Your task to perform on an android device: Open location settings Image 0: 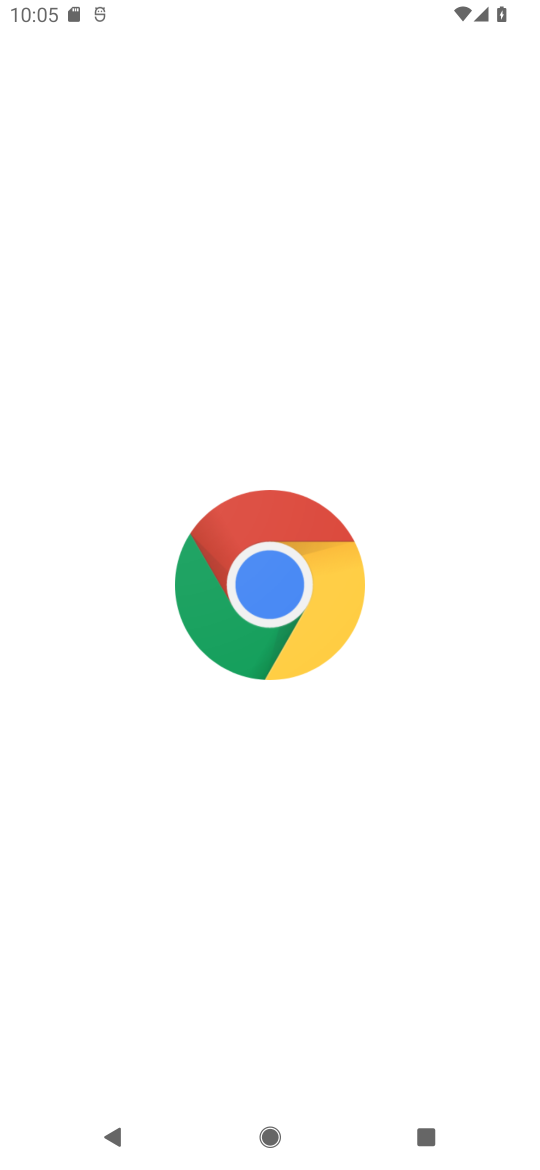
Step 0: press home button
Your task to perform on an android device: Open location settings Image 1: 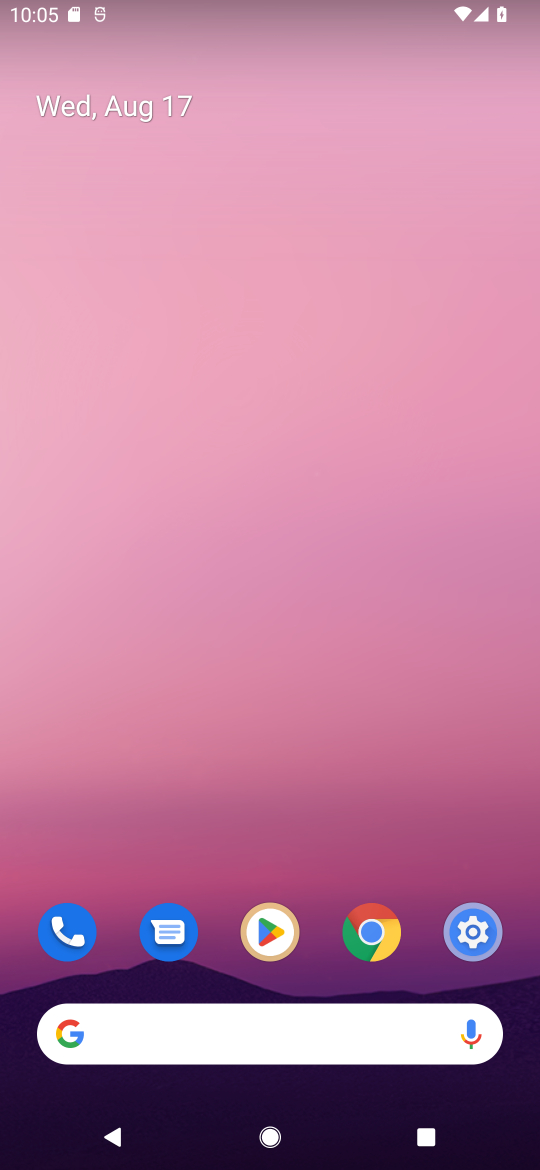
Step 1: drag from (298, 879) to (299, 165)
Your task to perform on an android device: Open location settings Image 2: 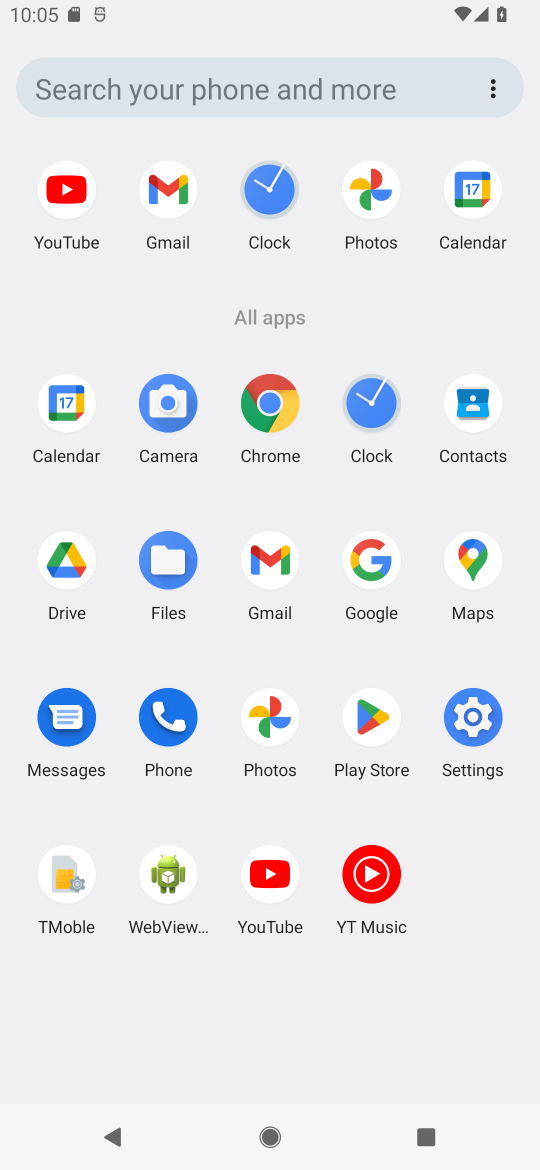
Step 2: click (477, 717)
Your task to perform on an android device: Open location settings Image 3: 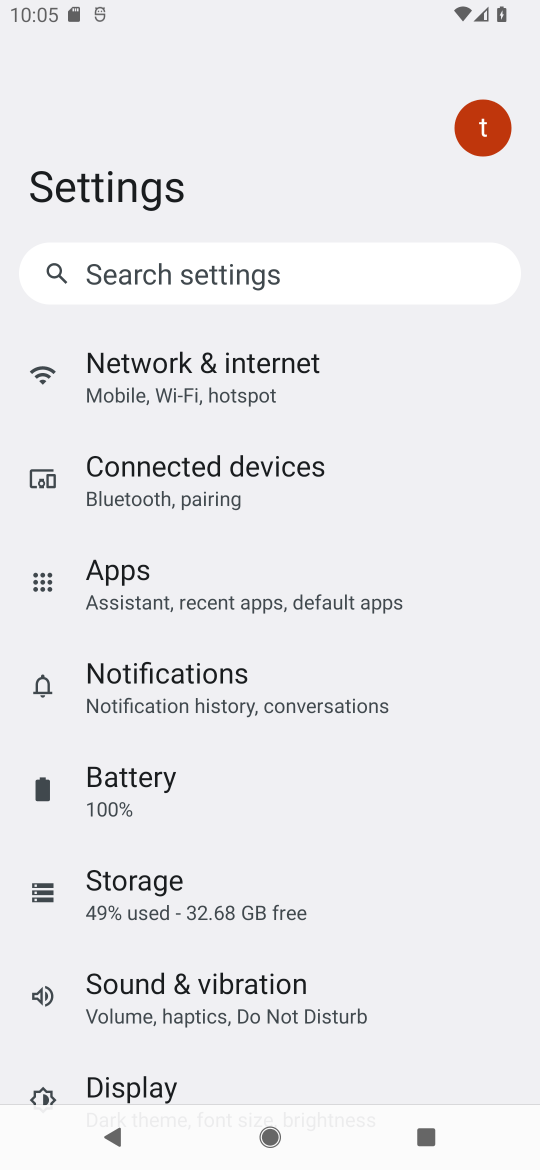
Step 3: click (161, 1024)
Your task to perform on an android device: Open location settings Image 4: 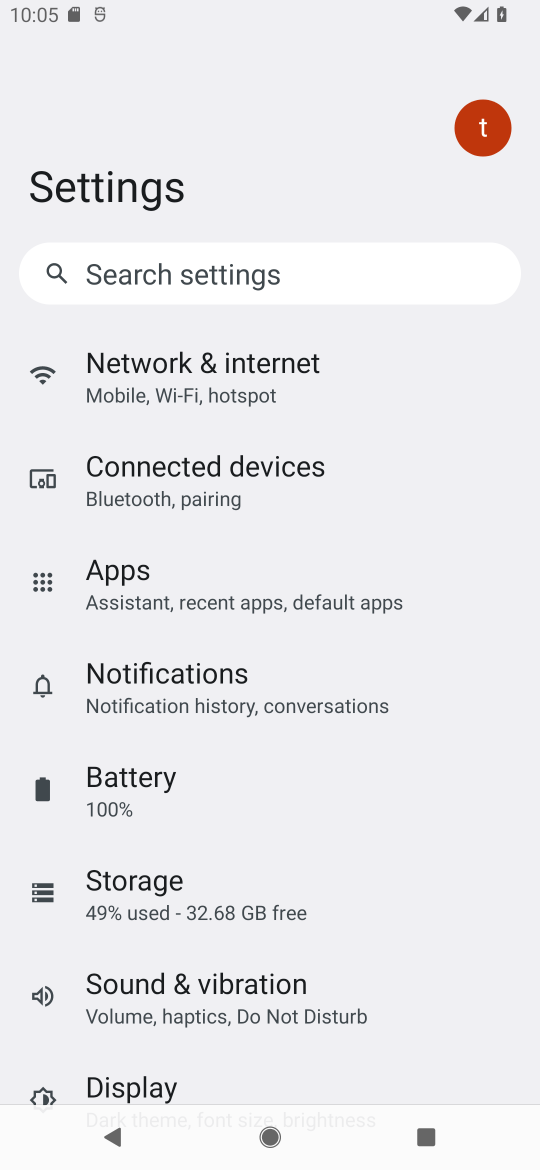
Step 4: drag from (145, 751) to (131, 407)
Your task to perform on an android device: Open location settings Image 5: 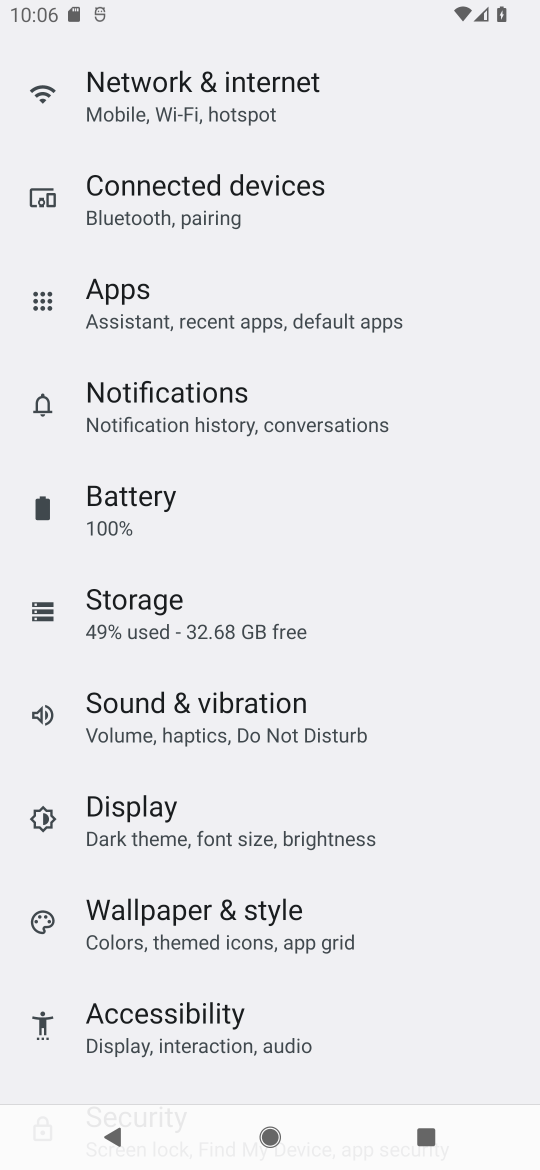
Step 5: drag from (140, 922) to (140, 782)
Your task to perform on an android device: Open location settings Image 6: 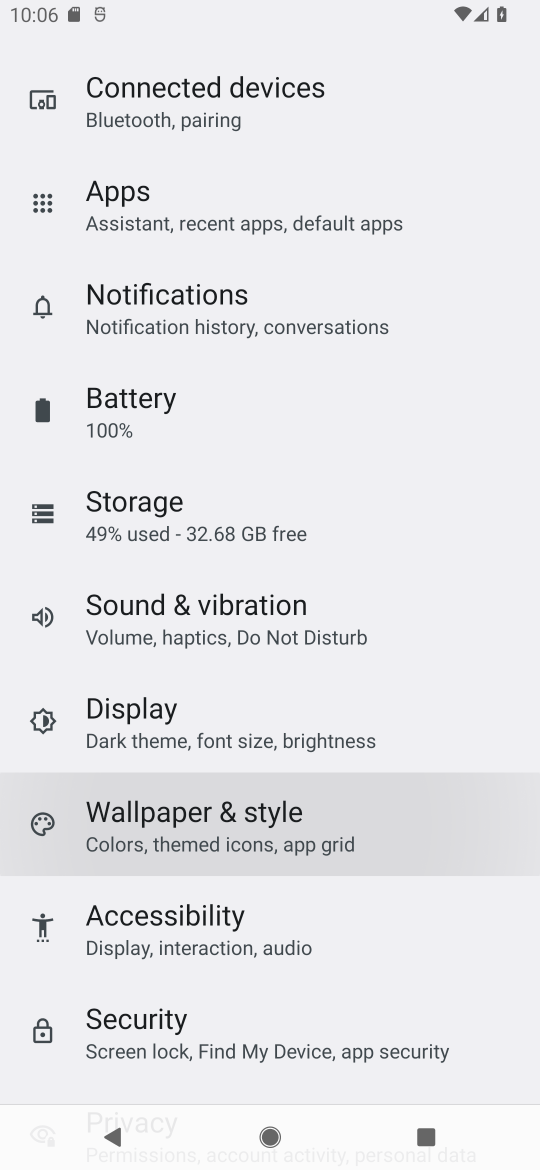
Step 6: drag from (140, 514) to (140, 364)
Your task to perform on an android device: Open location settings Image 7: 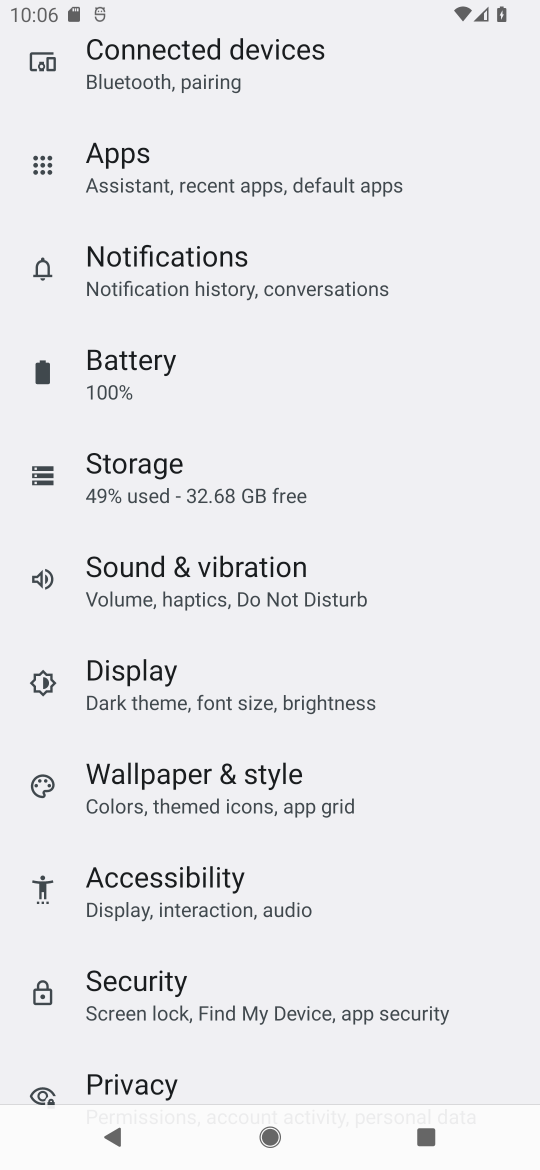
Step 7: drag from (144, 1010) to (125, 308)
Your task to perform on an android device: Open location settings Image 8: 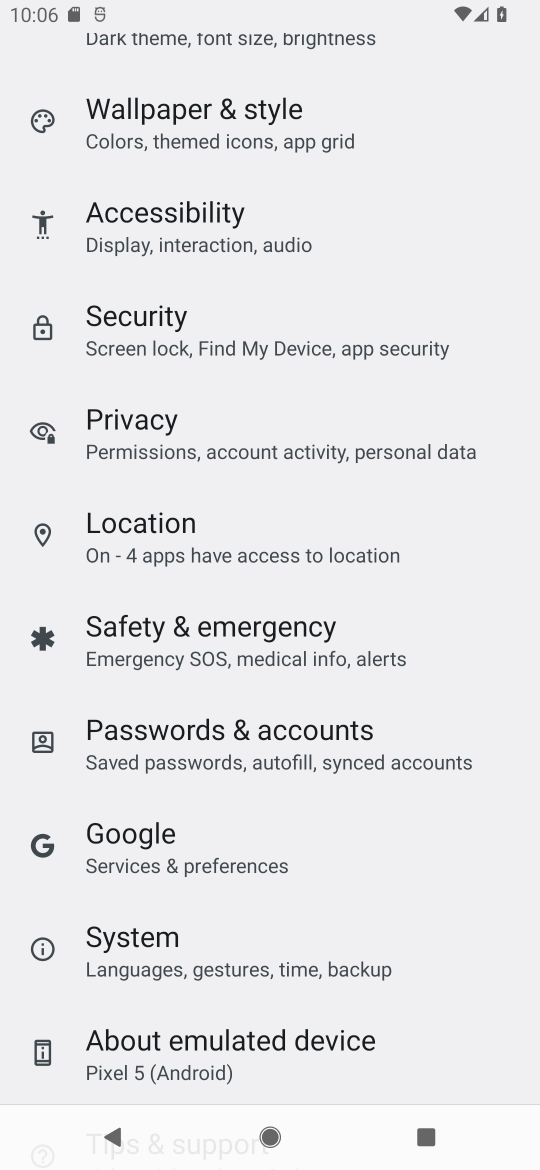
Step 8: click (124, 532)
Your task to perform on an android device: Open location settings Image 9: 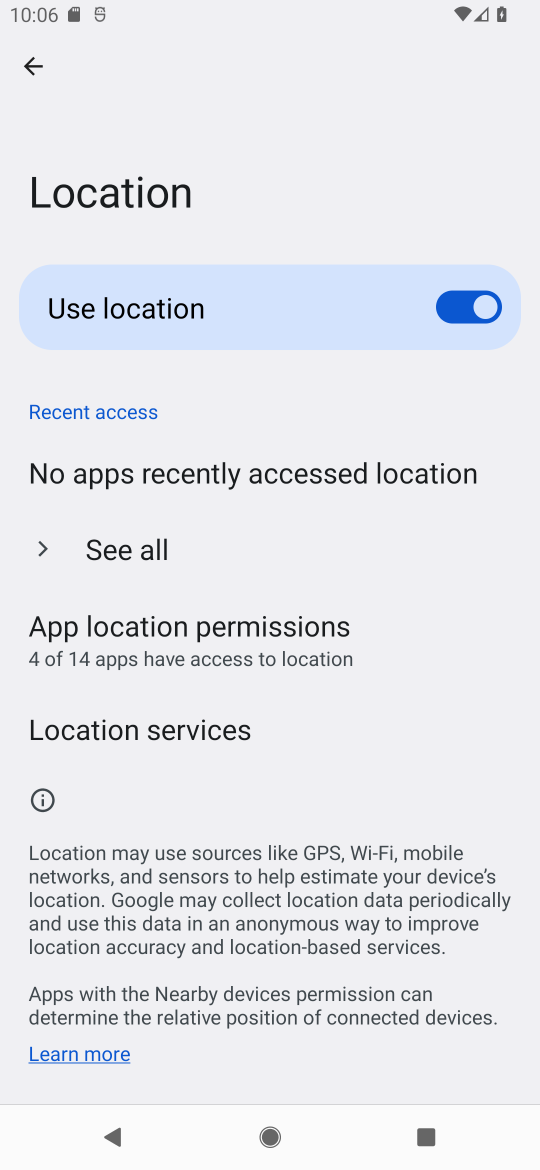
Step 9: task complete